Your task to perform on an android device: move a message to another label in the gmail app Image 0: 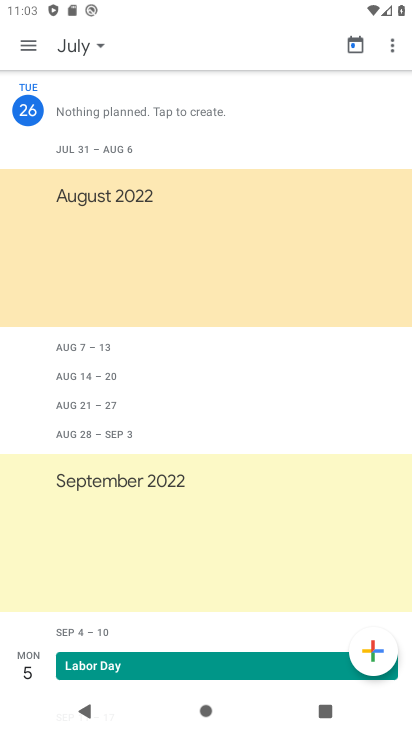
Step 0: press back button
Your task to perform on an android device: move a message to another label in the gmail app Image 1: 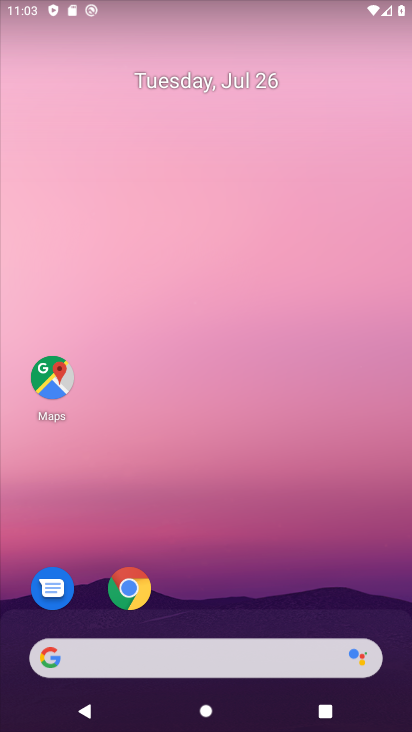
Step 1: drag from (253, 436) to (279, 19)
Your task to perform on an android device: move a message to another label in the gmail app Image 2: 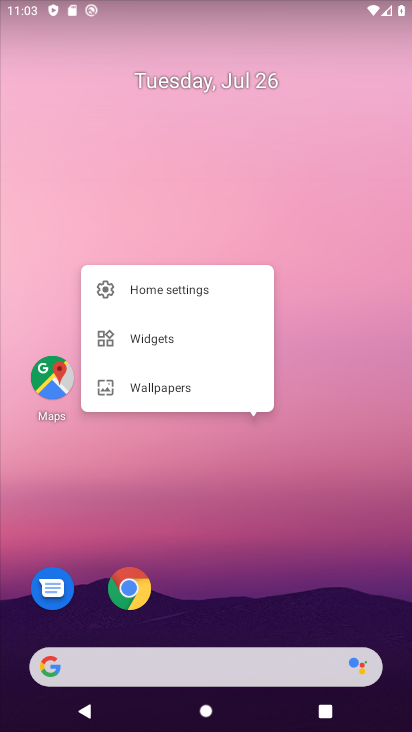
Step 2: click (218, 572)
Your task to perform on an android device: move a message to another label in the gmail app Image 3: 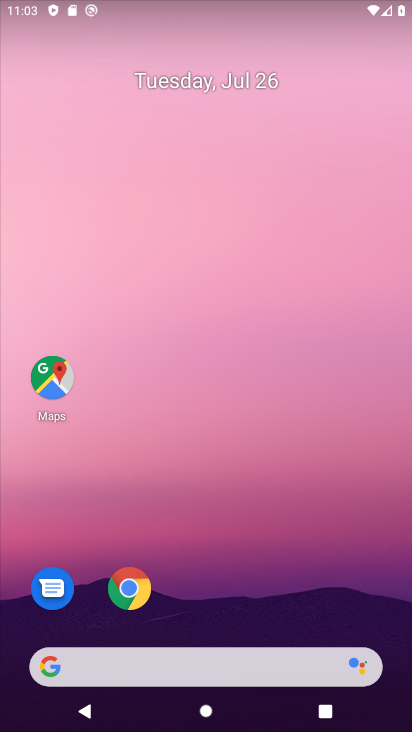
Step 3: drag from (219, 571) to (291, 4)
Your task to perform on an android device: move a message to another label in the gmail app Image 4: 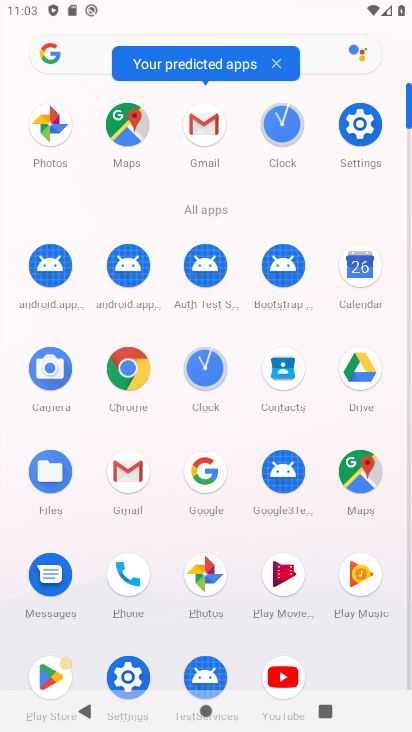
Step 4: click (209, 128)
Your task to perform on an android device: move a message to another label in the gmail app Image 5: 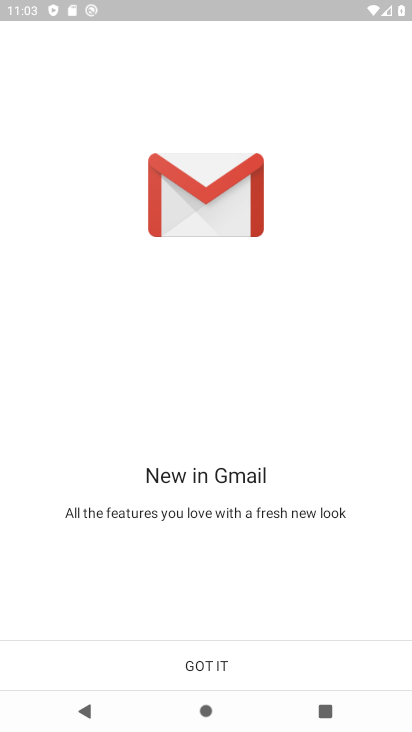
Step 5: click (220, 667)
Your task to perform on an android device: move a message to another label in the gmail app Image 6: 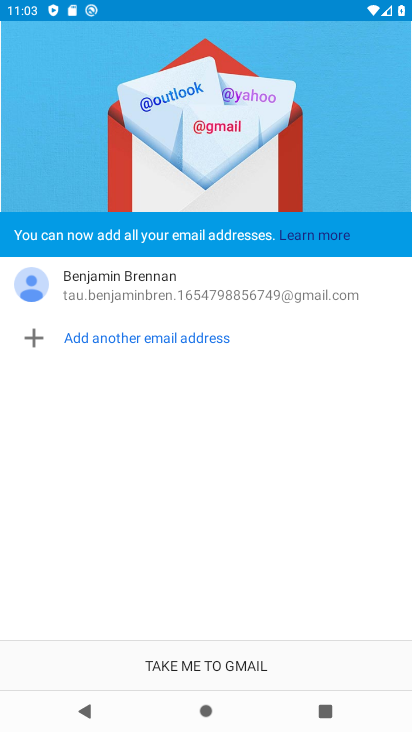
Step 6: click (220, 661)
Your task to perform on an android device: move a message to another label in the gmail app Image 7: 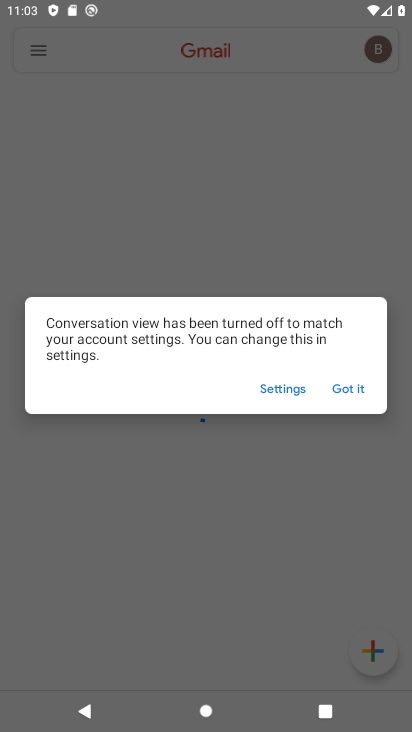
Step 7: click (343, 389)
Your task to perform on an android device: move a message to another label in the gmail app Image 8: 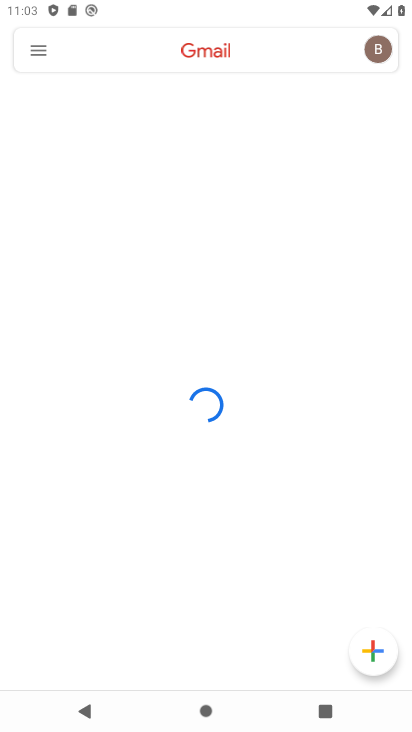
Step 8: click (49, 49)
Your task to perform on an android device: move a message to another label in the gmail app Image 9: 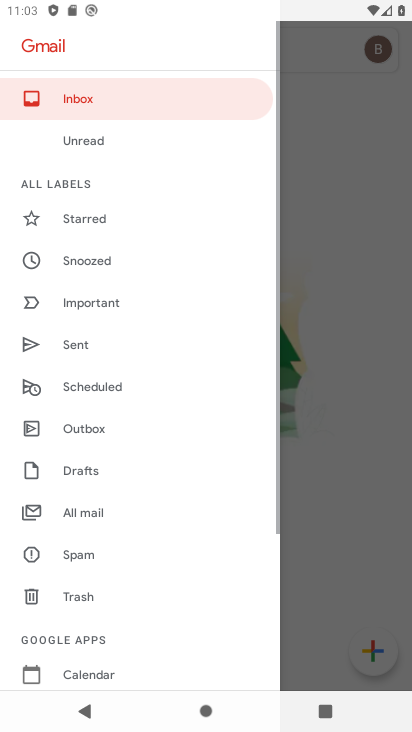
Step 9: click (99, 522)
Your task to perform on an android device: move a message to another label in the gmail app Image 10: 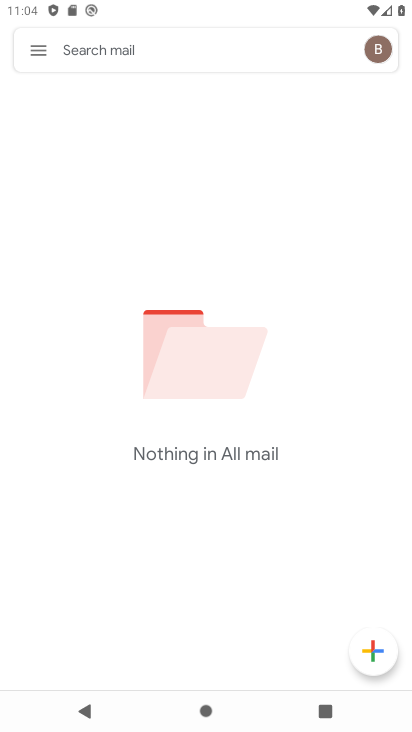
Step 10: task complete